Your task to perform on an android device: View the shopping cart on costco. Search for "jbl flip 4" on costco, select the first entry, add it to the cart, then select checkout. Image 0: 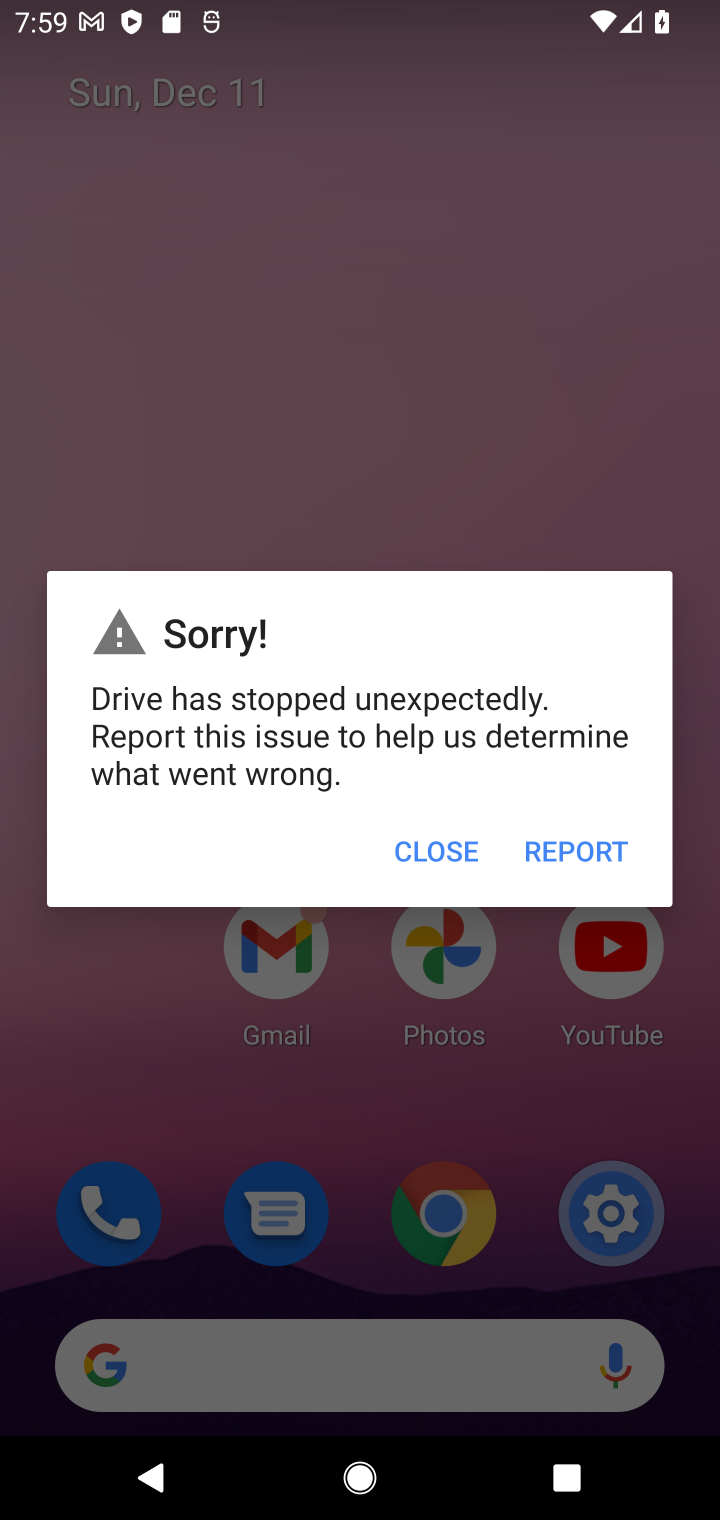
Step 0: click (468, 862)
Your task to perform on an android device: View the shopping cart on costco. Search for "jbl flip 4" on costco, select the first entry, add it to the cart, then select checkout. Image 1: 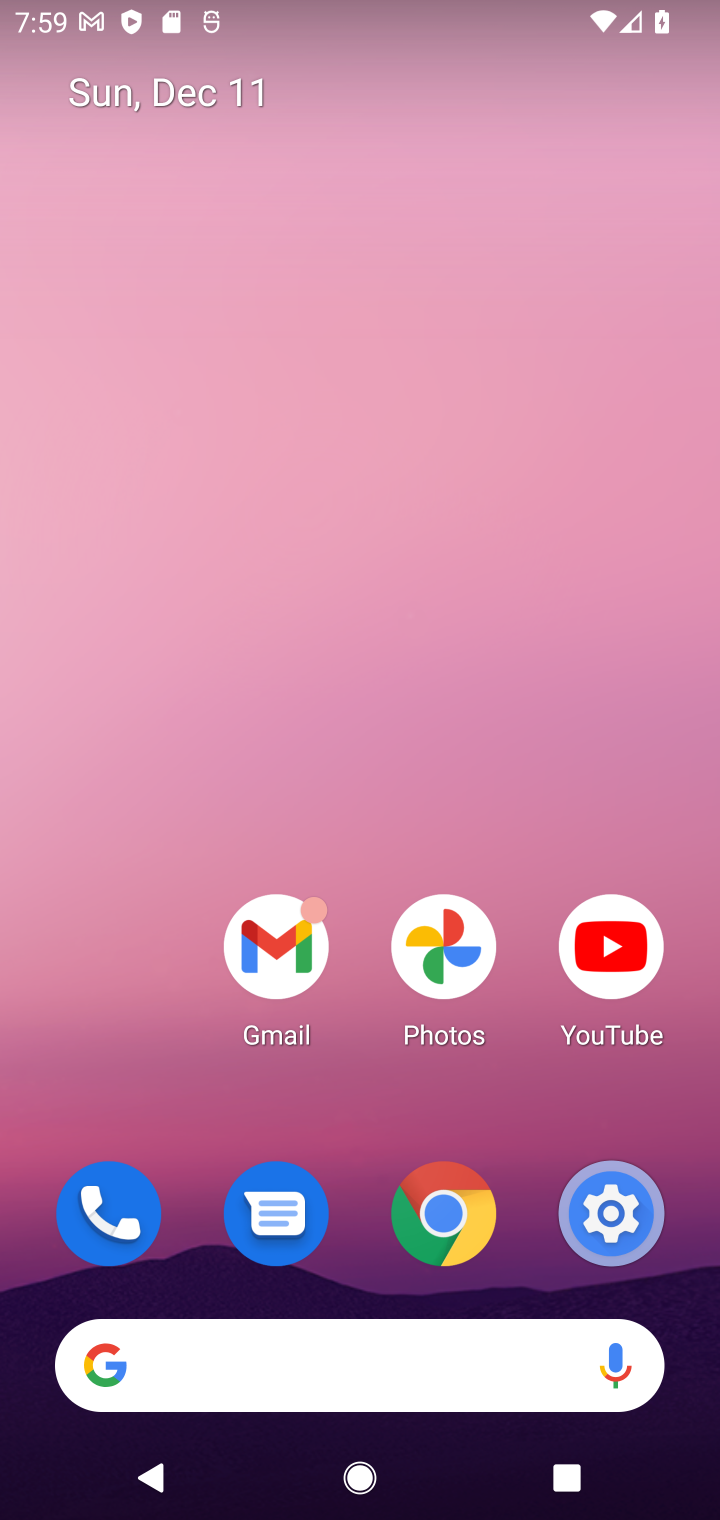
Step 1: click (362, 1376)
Your task to perform on an android device: View the shopping cart on costco. Search for "jbl flip 4" on costco, select the first entry, add it to the cart, then select checkout. Image 2: 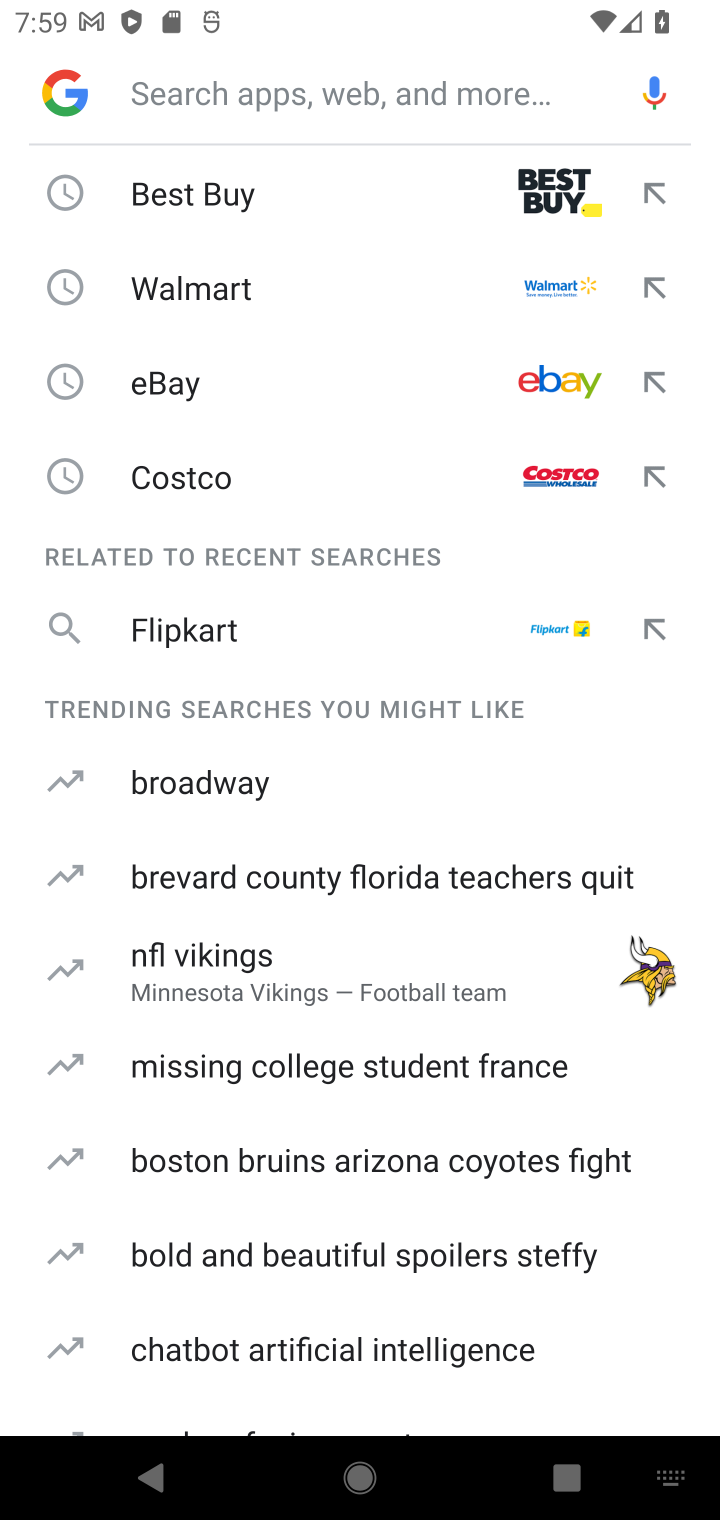
Step 2: type "costco"
Your task to perform on an android device: View the shopping cart on costco. Search for "jbl flip 4" on costco, select the first entry, add it to the cart, then select checkout. Image 3: 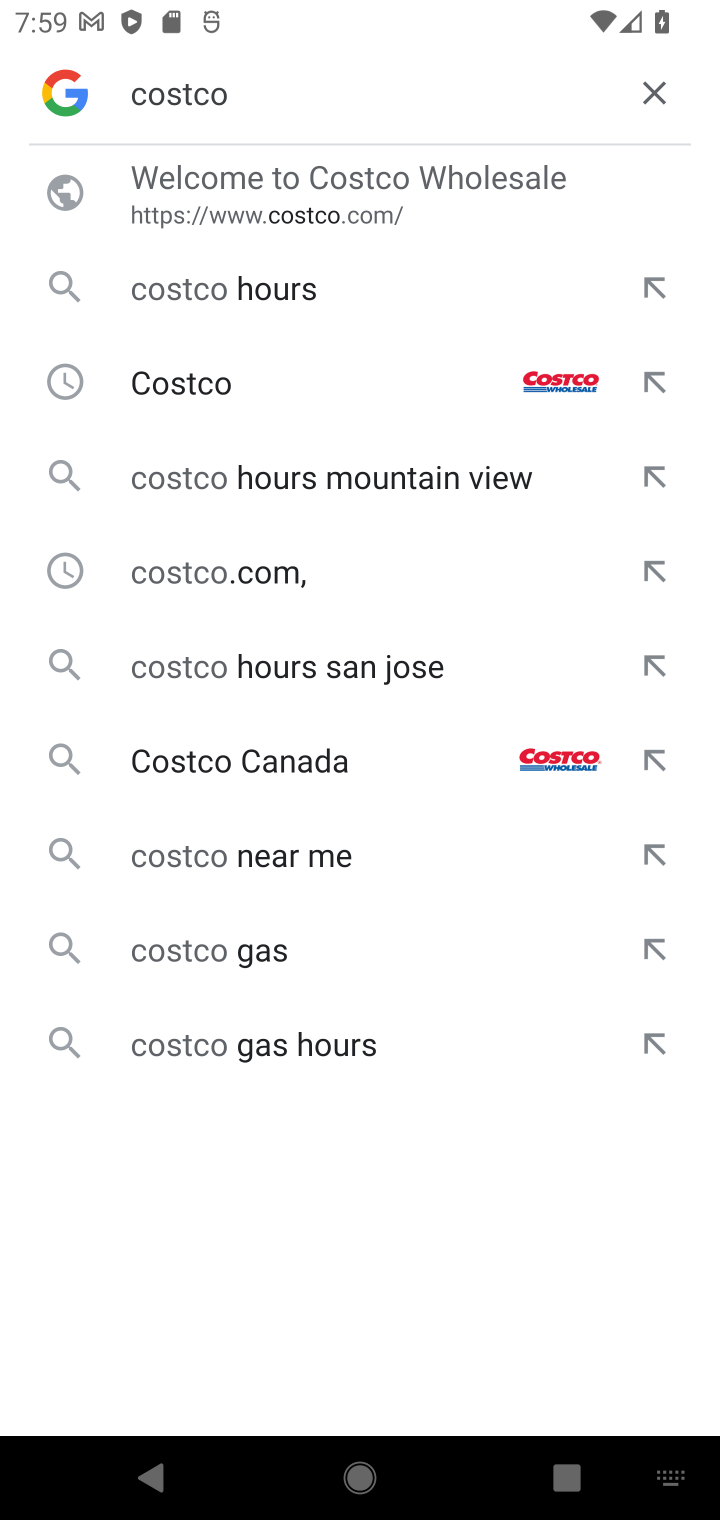
Step 3: click (268, 367)
Your task to perform on an android device: View the shopping cart on costco. Search for "jbl flip 4" on costco, select the first entry, add it to the cart, then select checkout. Image 4: 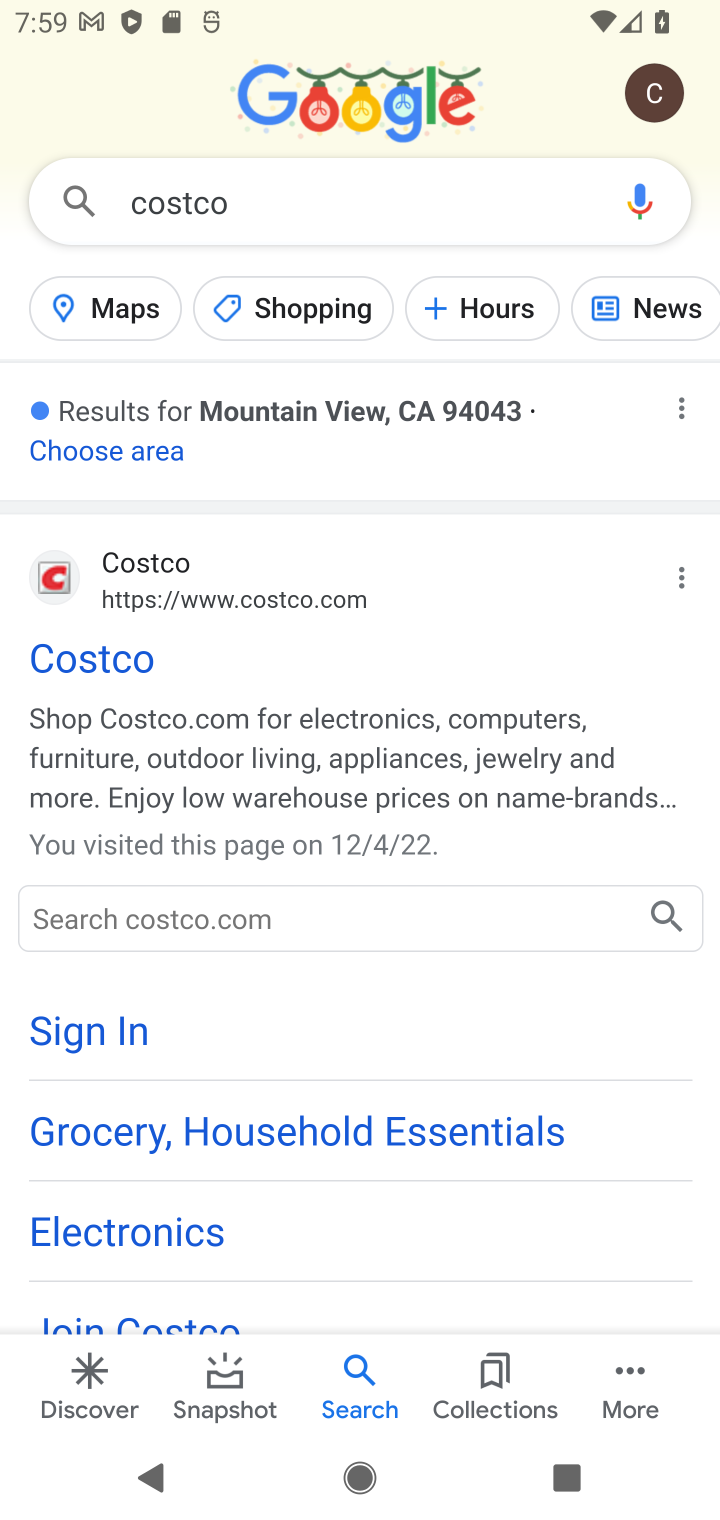
Step 4: click (58, 663)
Your task to perform on an android device: View the shopping cart on costco. Search for "jbl flip 4" on costco, select the first entry, add it to the cart, then select checkout. Image 5: 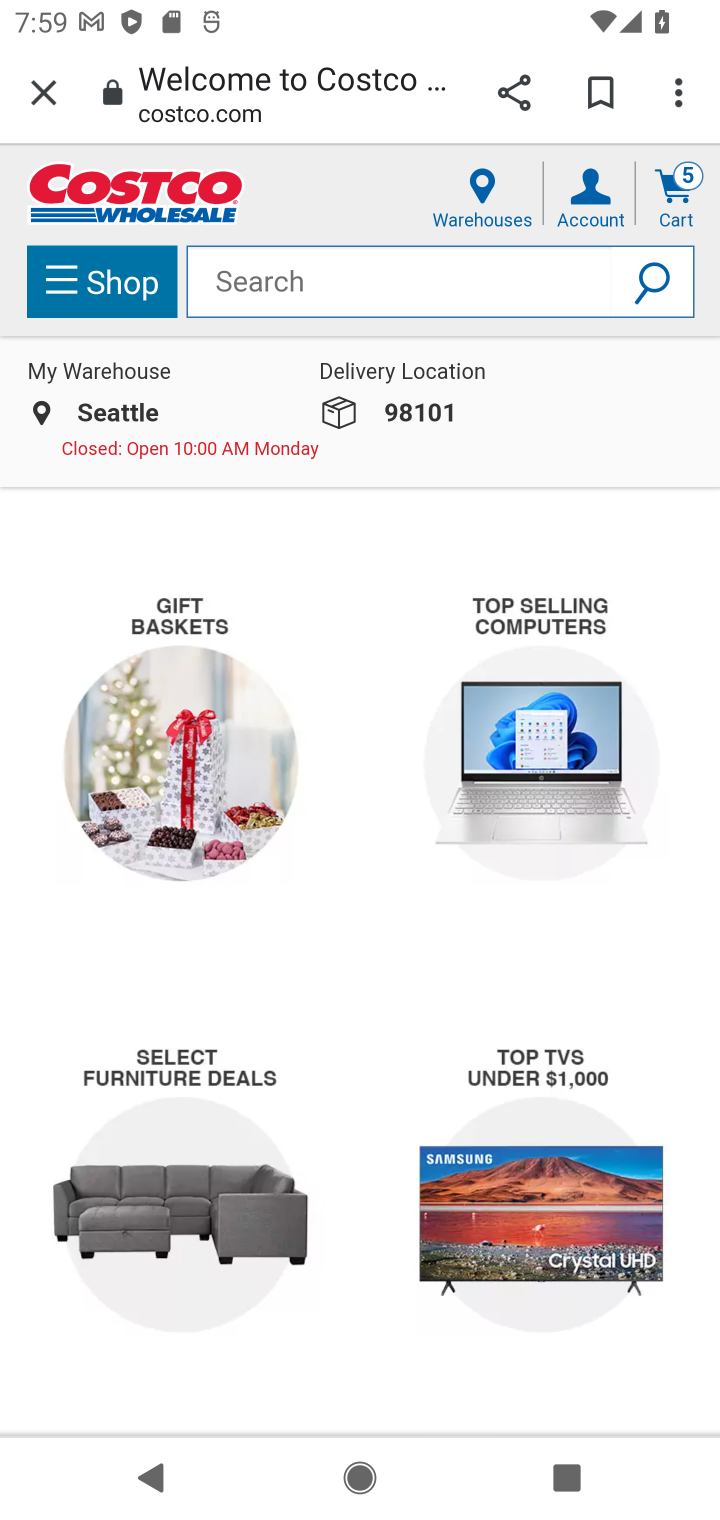
Step 5: click (489, 317)
Your task to perform on an android device: View the shopping cart on costco. Search for "jbl flip 4" on costco, select the first entry, add it to the cart, then select checkout. Image 6: 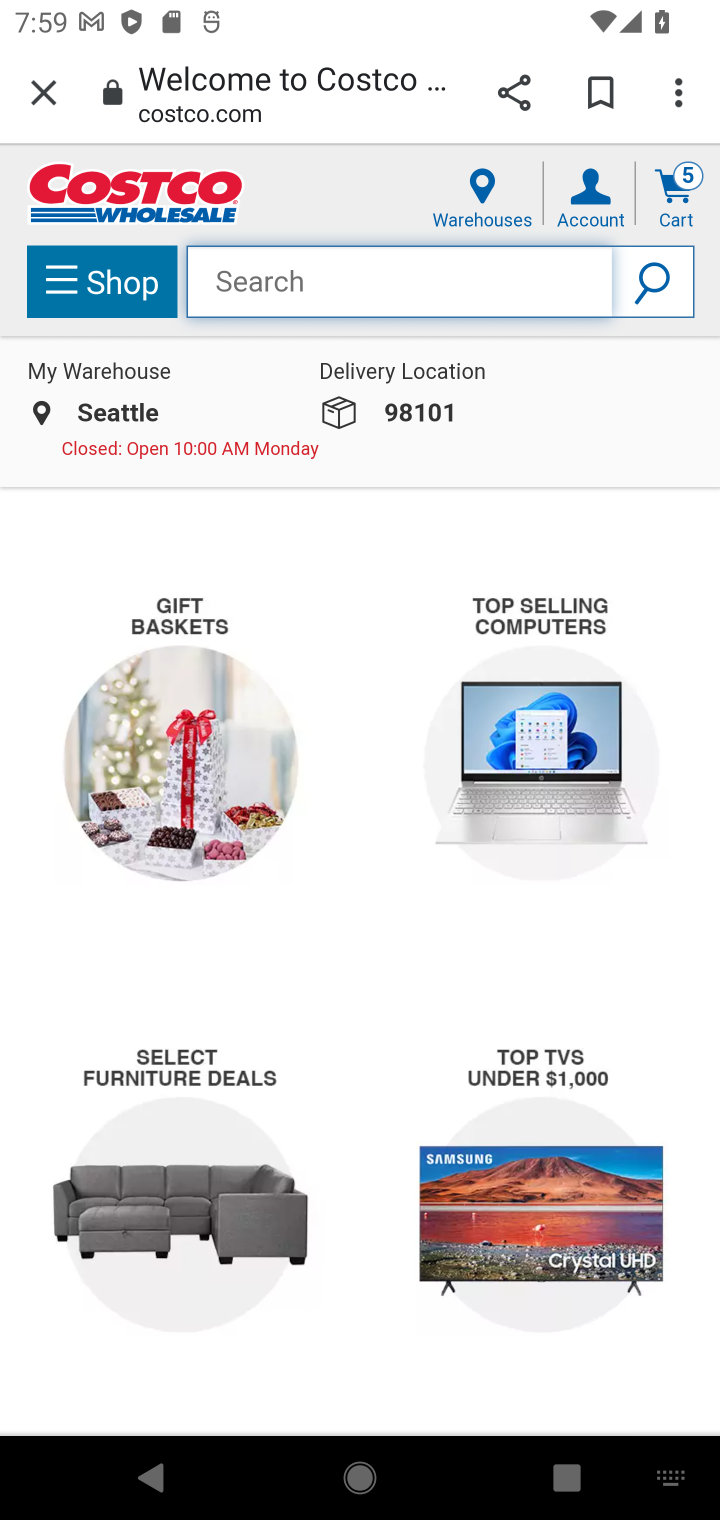
Step 6: type "jbl f;ip 4"
Your task to perform on an android device: View the shopping cart on costco. Search for "jbl flip 4" on costco, select the first entry, add it to the cart, then select checkout. Image 7: 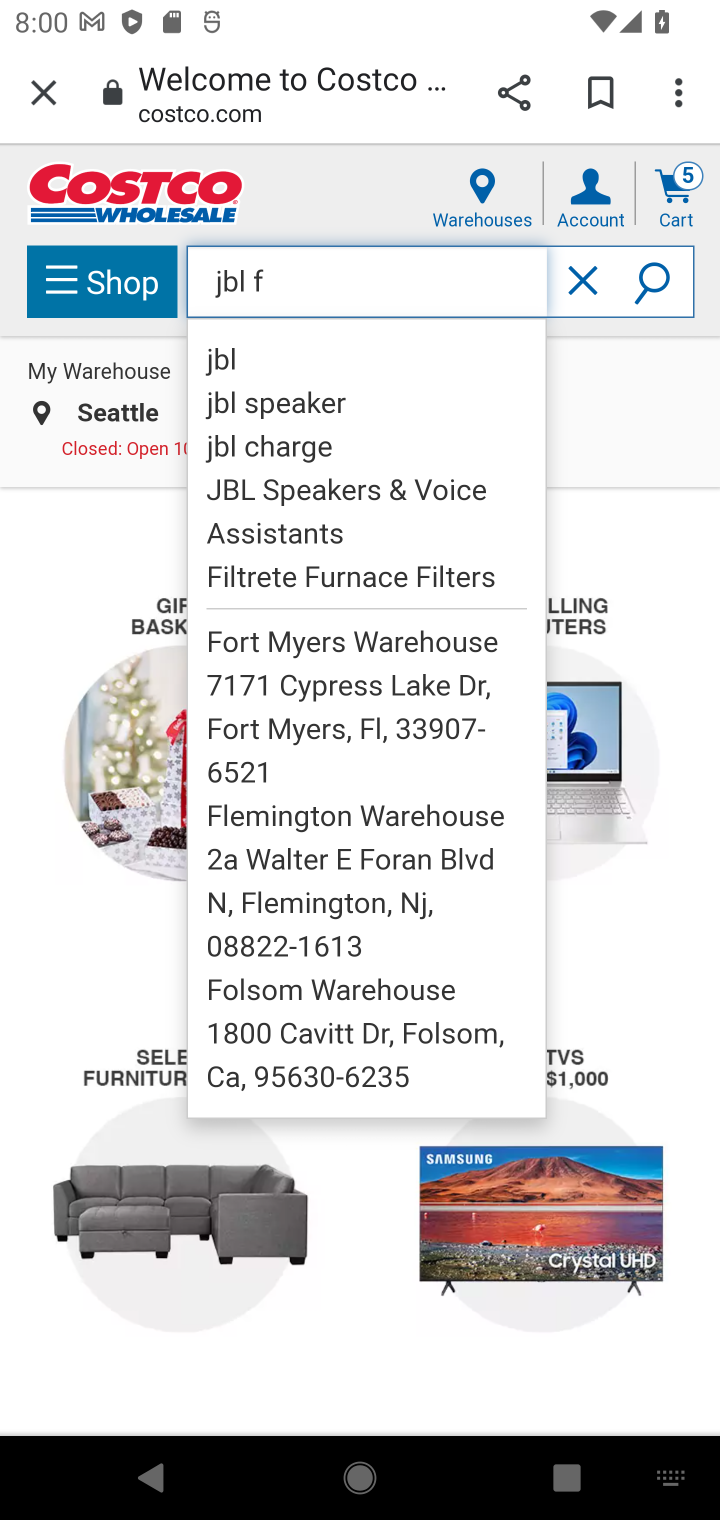
Step 7: type "lip"
Your task to perform on an android device: View the shopping cart on costco. Search for "jbl flip 4" on costco, select the first entry, add it to the cart, then select checkout. Image 8: 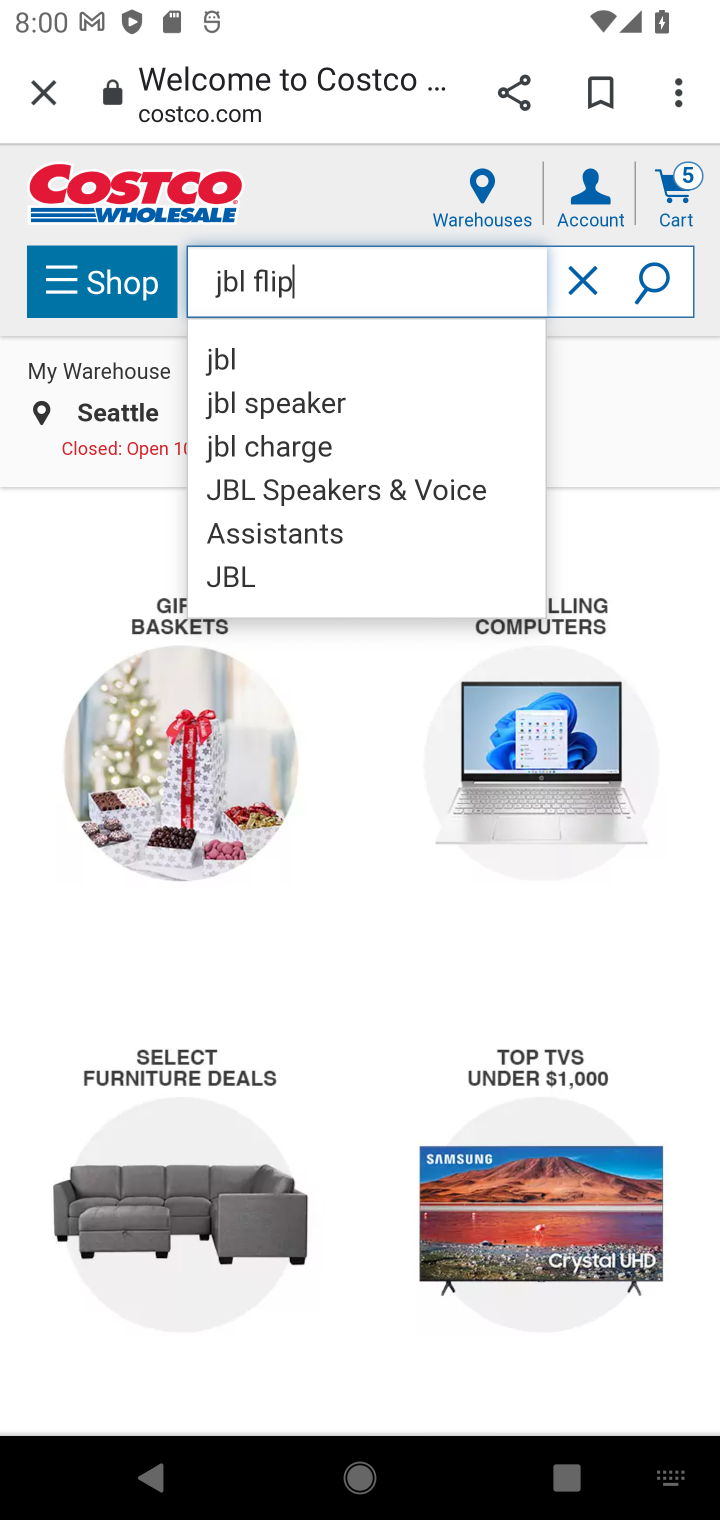
Step 8: click (640, 283)
Your task to perform on an android device: View the shopping cart on costco. Search for "jbl flip 4" on costco, select the first entry, add it to the cart, then select checkout. Image 9: 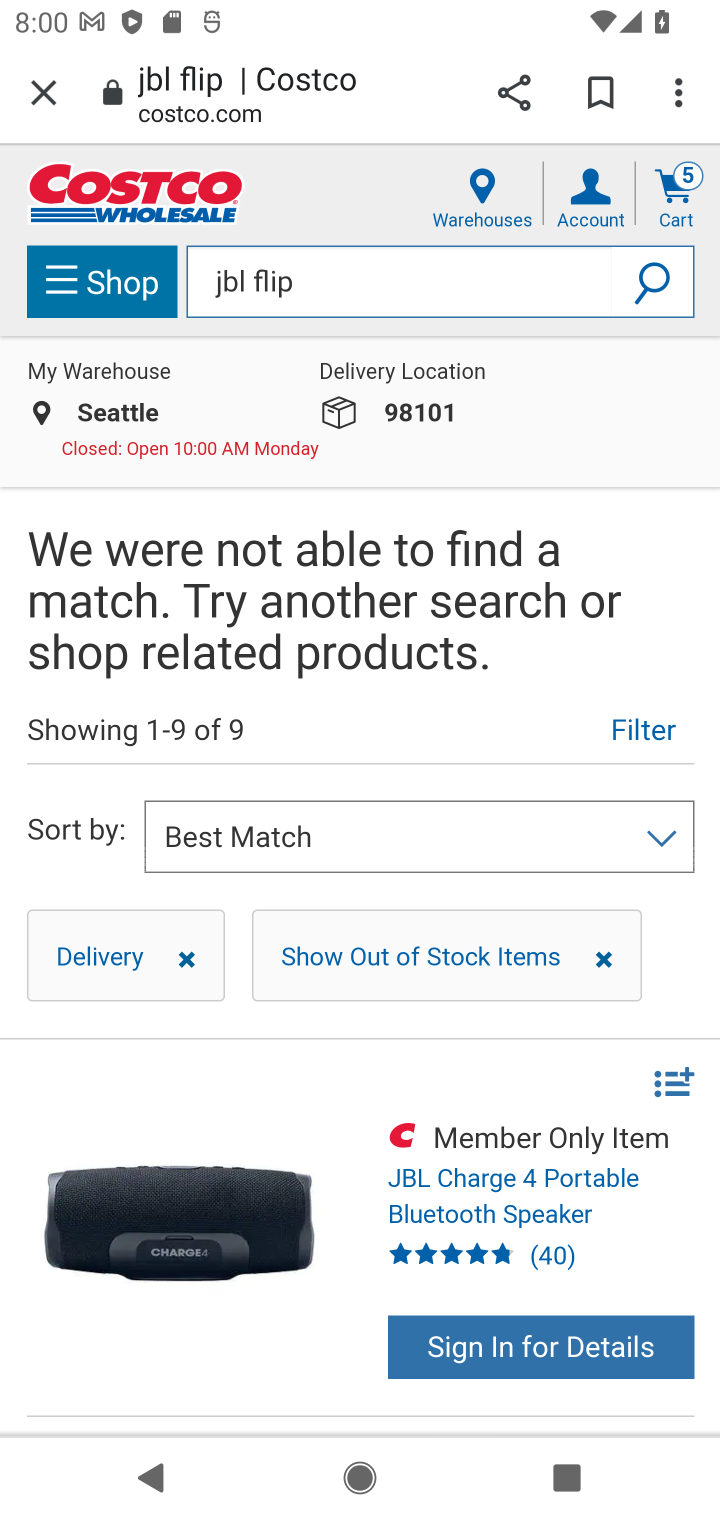
Step 9: click (403, 1226)
Your task to perform on an android device: View the shopping cart on costco. Search for "jbl flip 4" on costco, select the first entry, add it to the cart, then select checkout. Image 10: 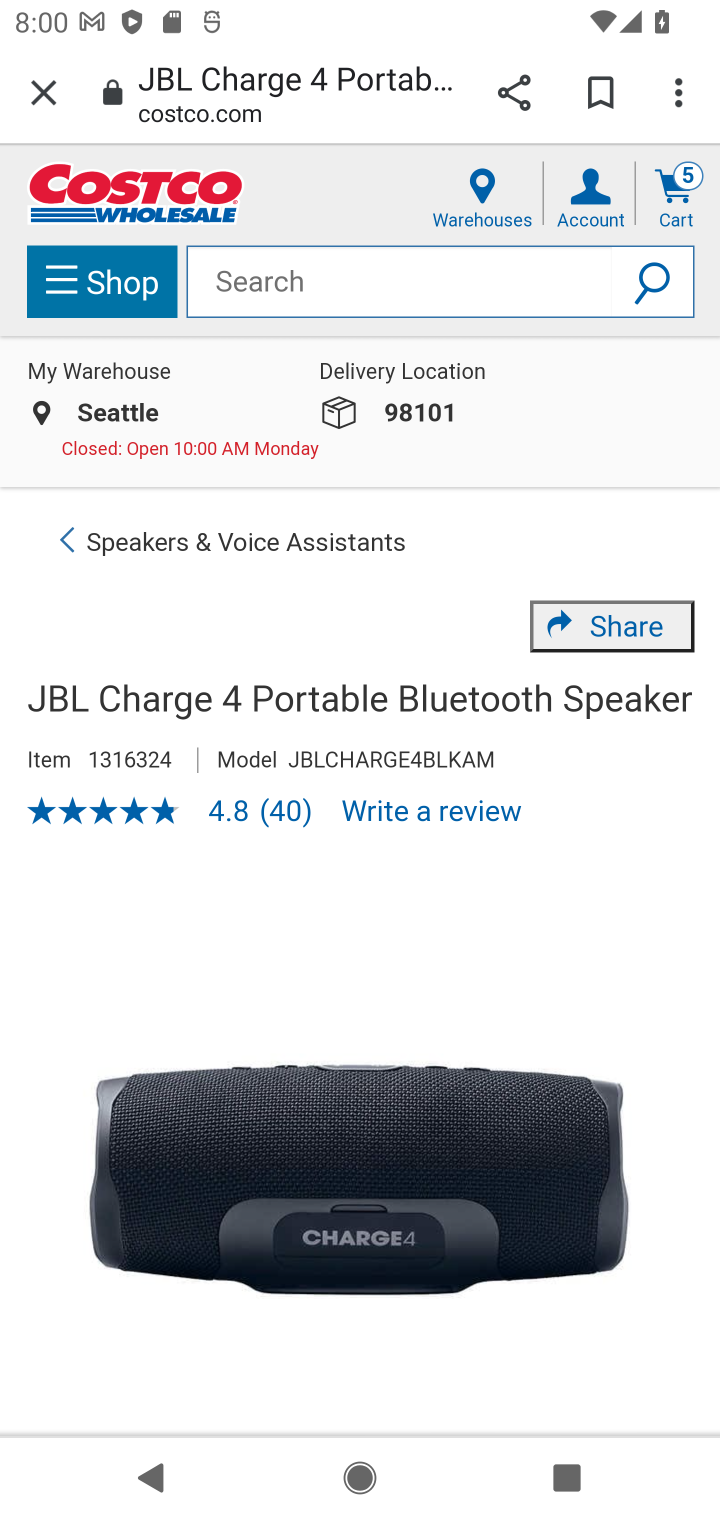
Step 10: task complete